Your task to perform on an android device: read, delete, or share a saved page in the chrome app Image 0: 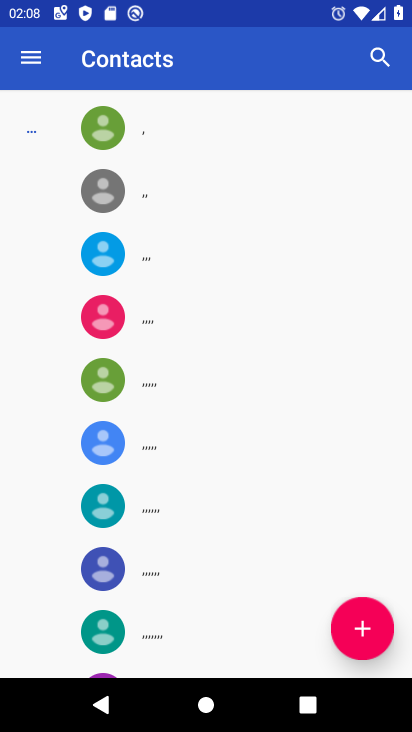
Step 0: press home button
Your task to perform on an android device: read, delete, or share a saved page in the chrome app Image 1: 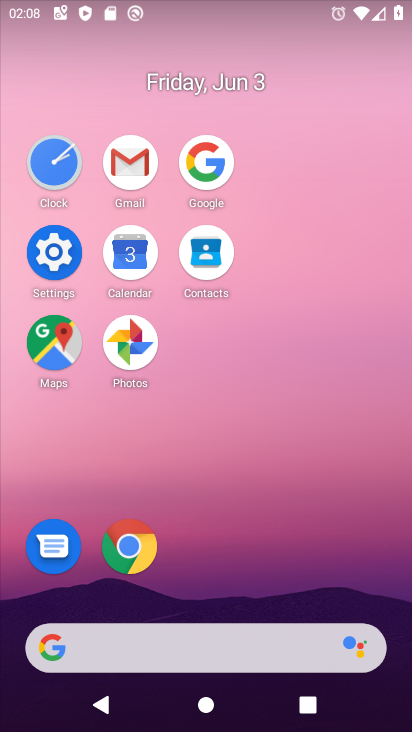
Step 1: click (131, 540)
Your task to perform on an android device: read, delete, or share a saved page in the chrome app Image 2: 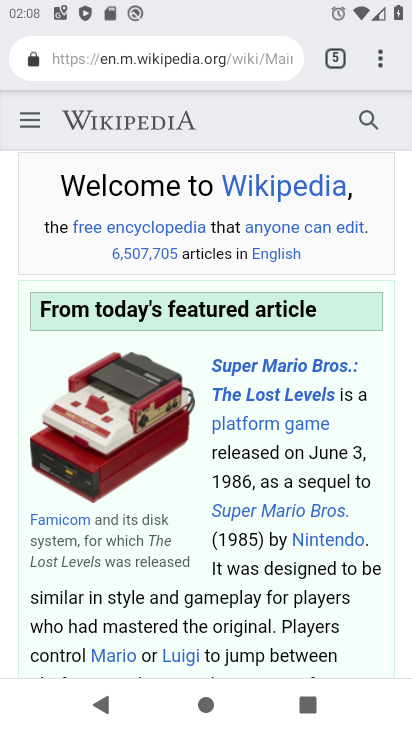
Step 2: click (373, 60)
Your task to perform on an android device: read, delete, or share a saved page in the chrome app Image 3: 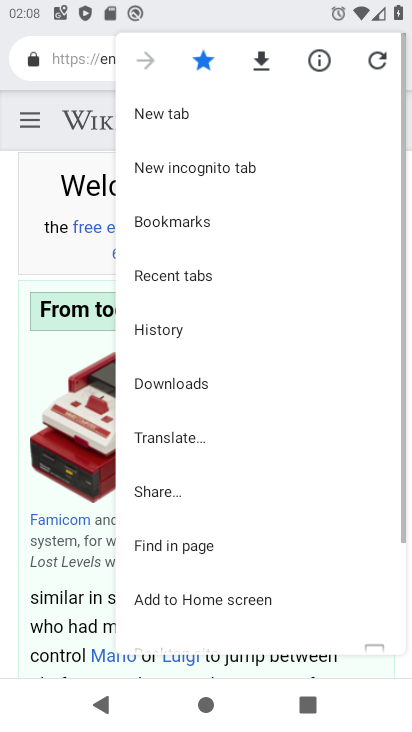
Step 3: click (215, 372)
Your task to perform on an android device: read, delete, or share a saved page in the chrome app Image 4: 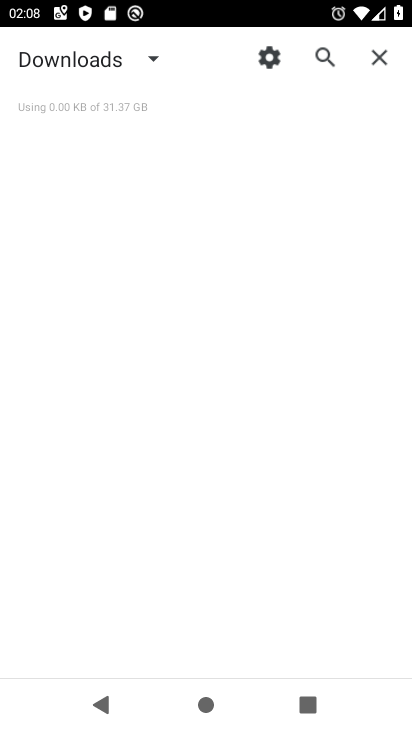
Step 4: task complete